Your task to perform on an android device: add a contact Image 0: 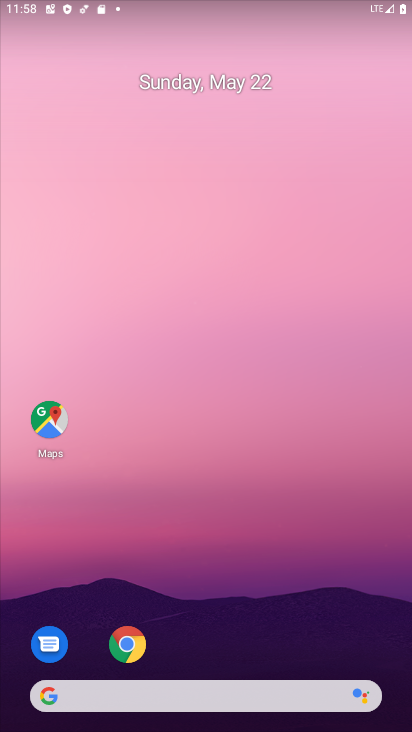
Step 0: drag from (332, 623) to (275, 21)
Your task to perform on an android device: add a contact Image 1: 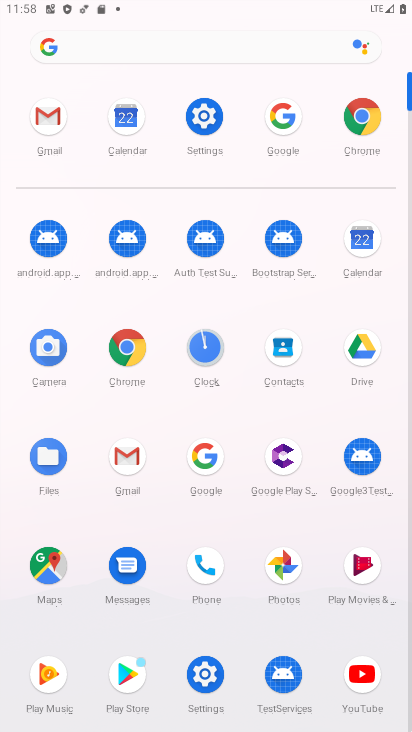
Step 1: click (281, 352)
Your task to perform on an android device: add a contact Image 2: 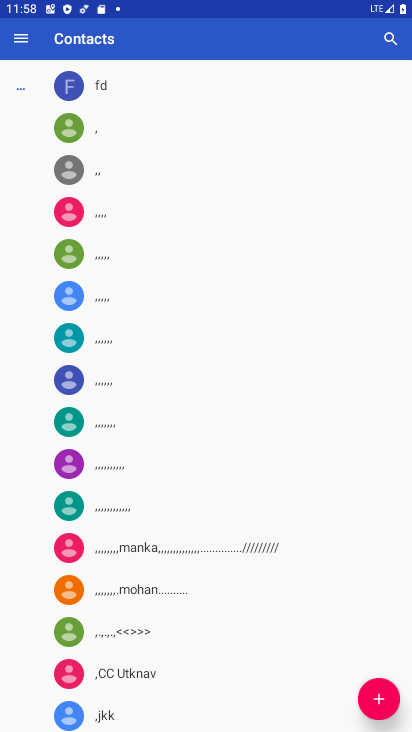
Step 2: click (368, 709)
Your task to perform on an android device: add a contact Image 3: 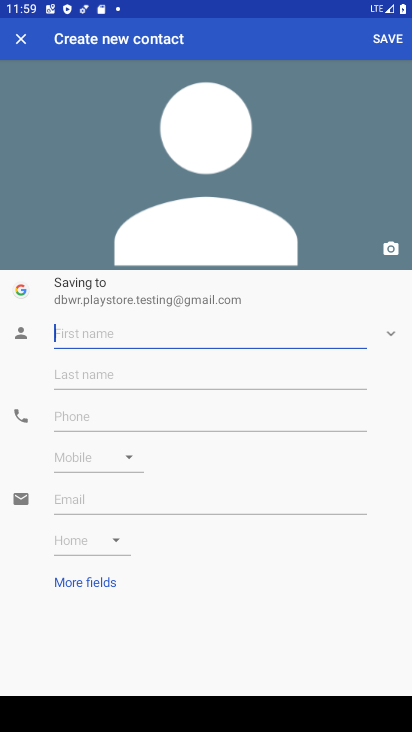
Step 3: type "vicky"
Your task to perform on an android device: add a contact Image 4: 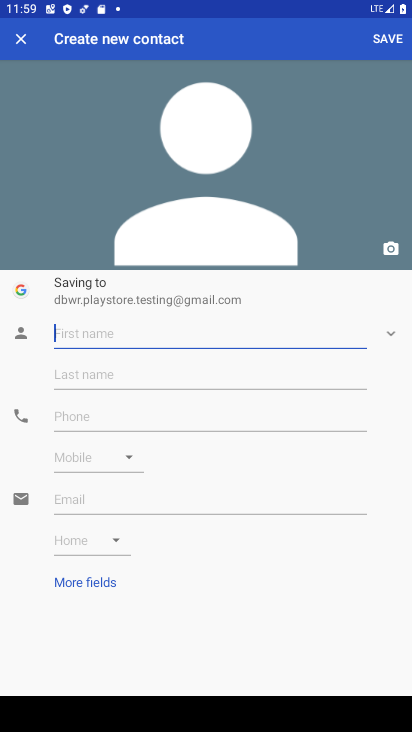
Step 4: click (376, 26)
Your task to perform on an android device: add a contact Image 5: 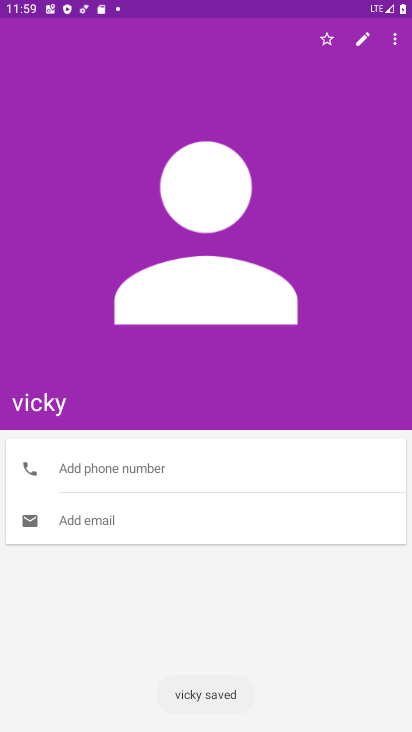
Step 5: task complete